Your task to perform on an android device: star an email in the gmail app Image 0: 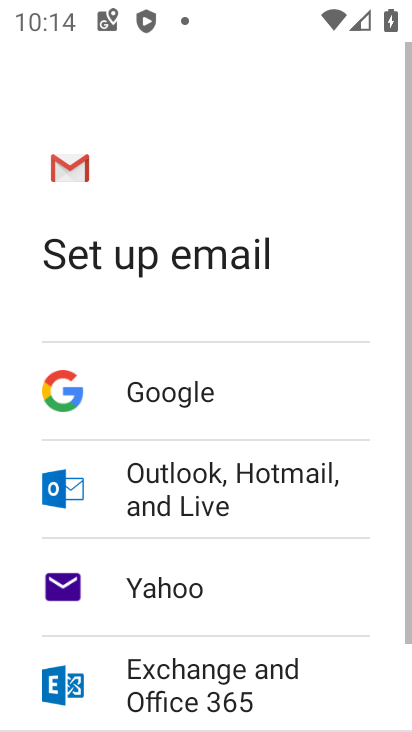
Step 0: press home button
Your task to perform on an android device: star an email in the gmail app Image 1: 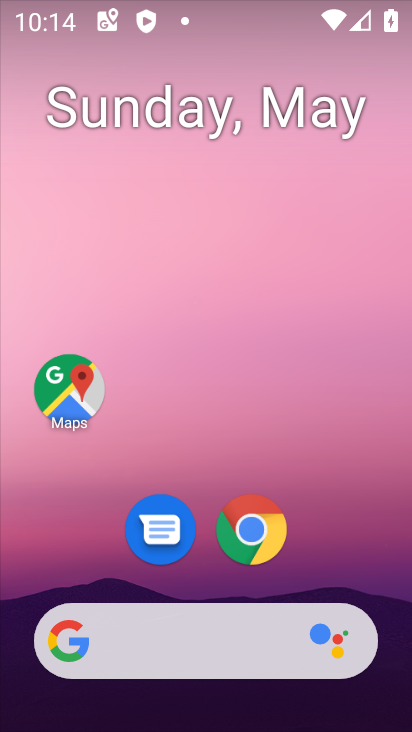
Step 1: drag from (190, 601) to (175, 0)
Your task to perform on an android device: star an email in the gmail app Image 2: 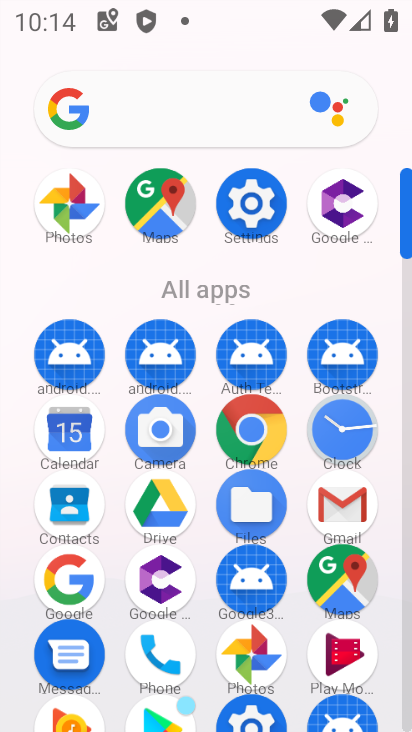
Step 2: click (358, 499)
Your task to perform on an android device: star an email in the gmail app Image 3: 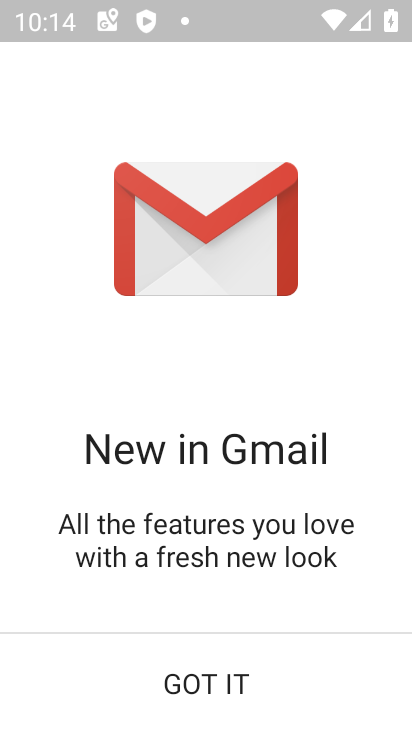
Step 3: press home button
Your task to perform on an android device: star an email in the gmail app Image 4: 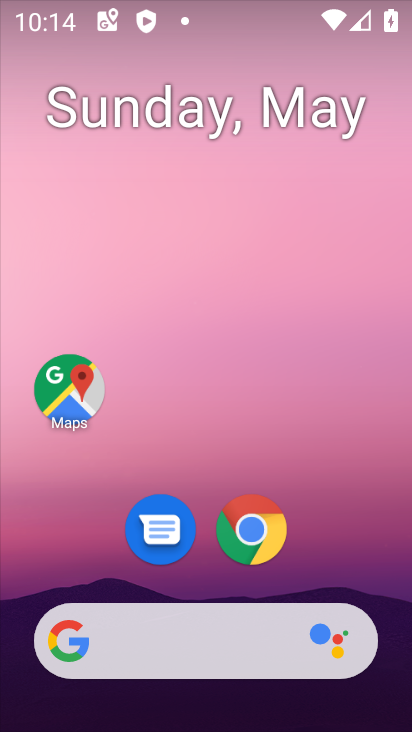
Step 4: drag from (214, 626) to (202, 23)
Your task to perform on an android device: star an email in the gmail app Image 5: 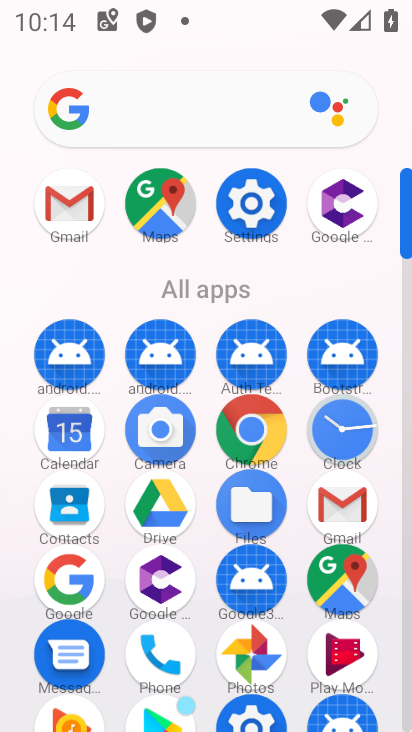
Step 5: click (349, 509)
Your task to perform on an android device: star an email in the gmail app Image 6: 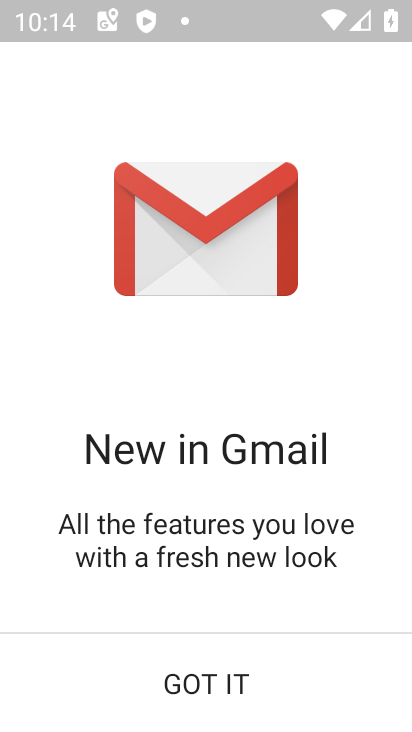
Step 6: click (258, 653)
Your task to perform on an android device: star an email in the gmail app Image 7: 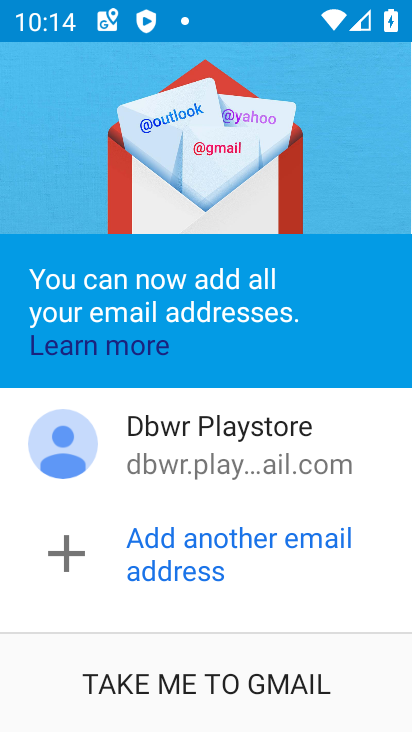
Step 7: click (273, 701)
Your task to perform on an android device: star an email in the gmail app Image 8: 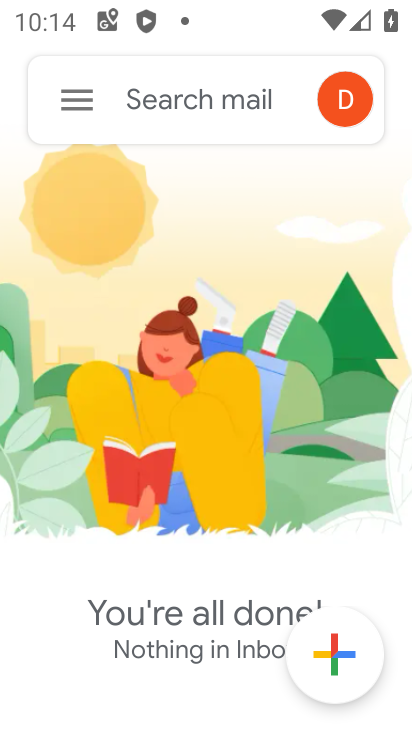
Step 8: click (82, 112)
Your task to perform on an android device: star an email in the gmail app Image 9: 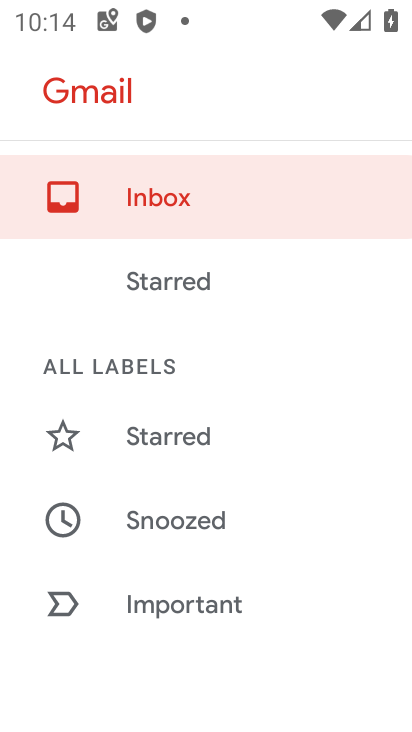
Step 9: drag from (232, 577) to (208, 7)
Your task to perform on an android device: star an email in the gmail app Image 10: 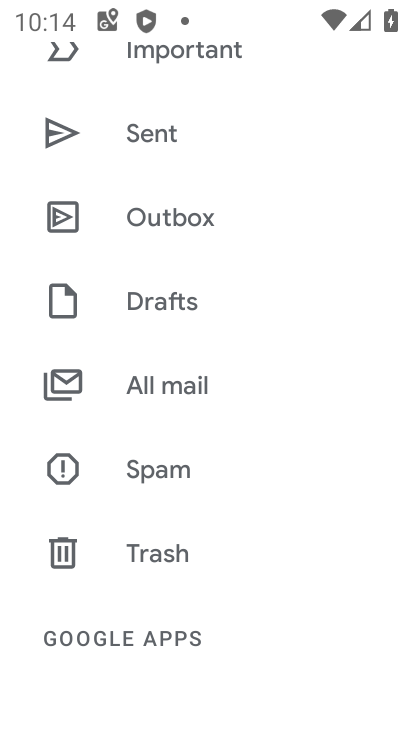
Step 10: click (171, 386)
Your task to perform on an android device: star an email in the gmail app Image 11: 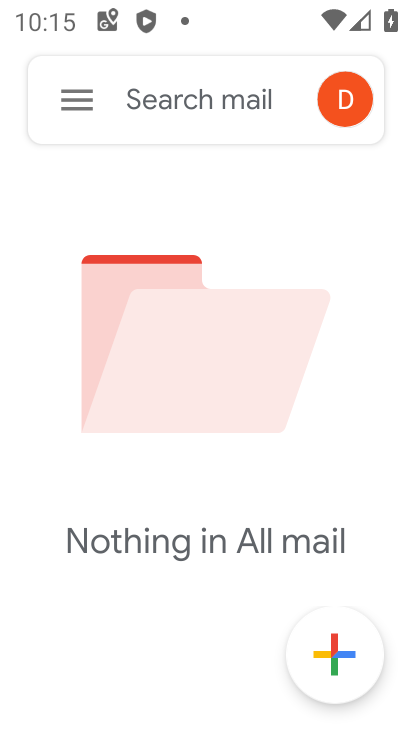
Step 11: task complete